Your task to perform on an android device: Go to Google Image 0: 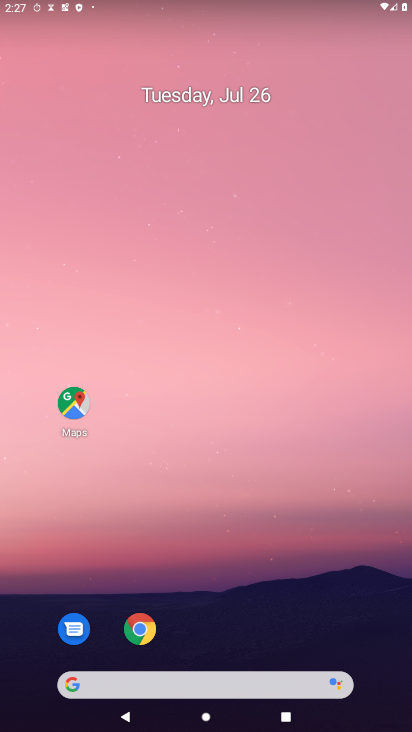
Step 0: drag from (275, 681) to (312, 30)
Your task to perform on an android device: Go to Google Image 1: 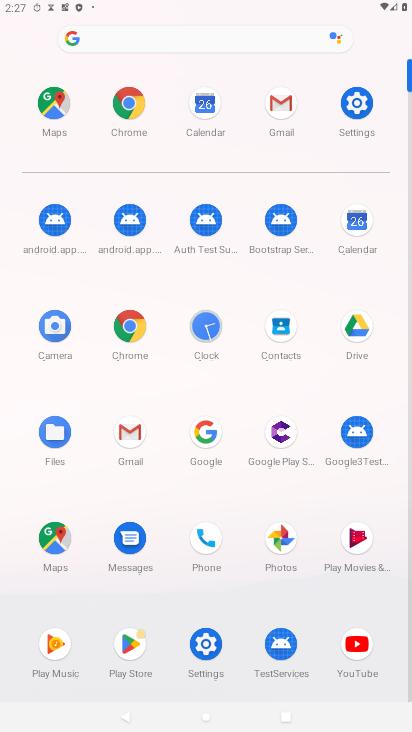
Step 1: click (121, 338)
Your task to perform on an android device: Go to Google Image 2: 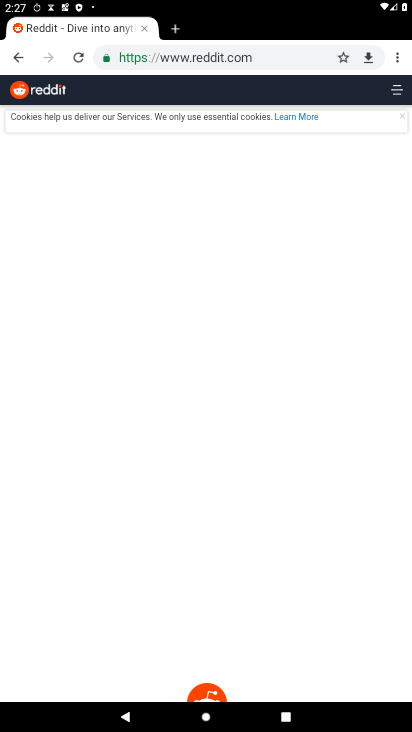
Step 2: task complete